Your task to perform on an android device: create a new album in the google photos Image 0: 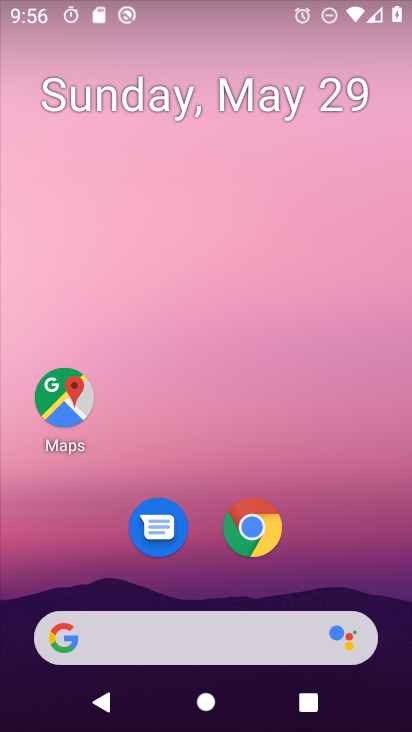
Step 0: drag from (394, 635) to (324, 64)
Your task to perform on an android device: create a new album in the google photos Image 1: 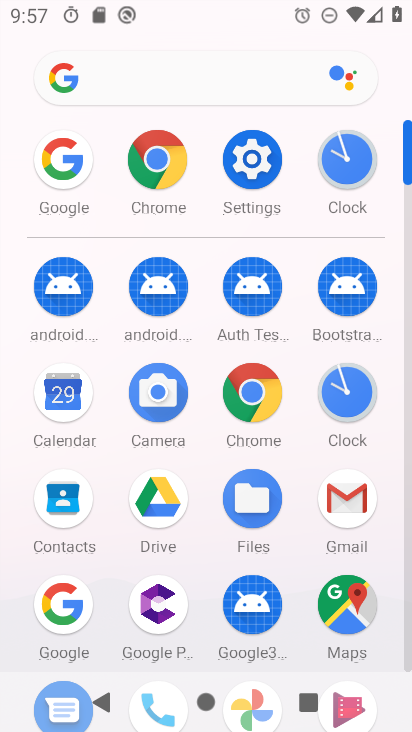
Step 1: drag from (247, 652) to (271, 132)
Your task to perform on an android device: create a new album in the google photos Image 2: 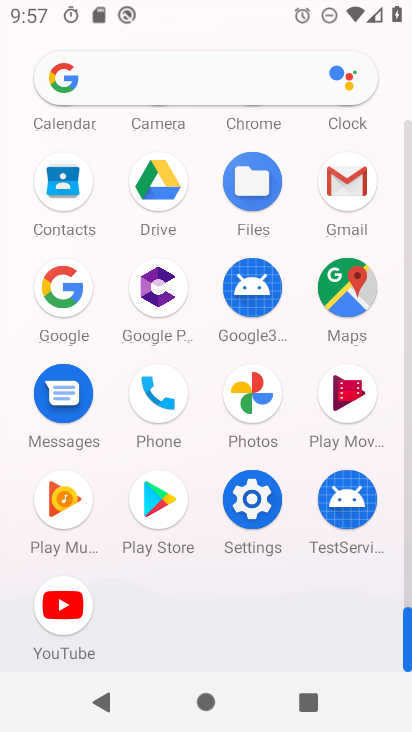
Step 2: click (256, 394)
Your task to perform on an android device: create a new album in the google photos Image 3: 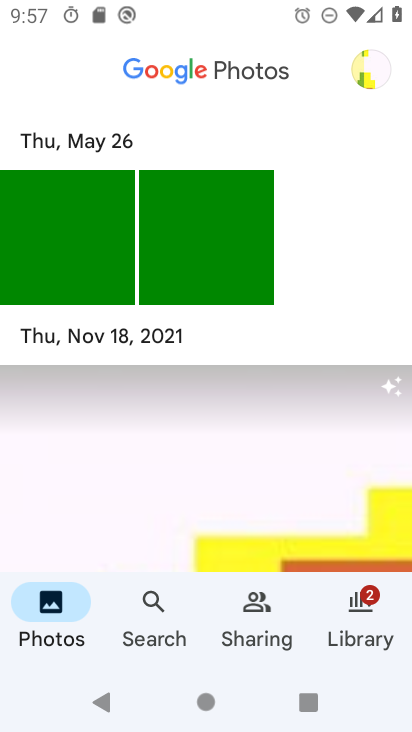
Step 3: click (5, 239)
Your task to perform on an android device: create a new album in the google photos Image 4: 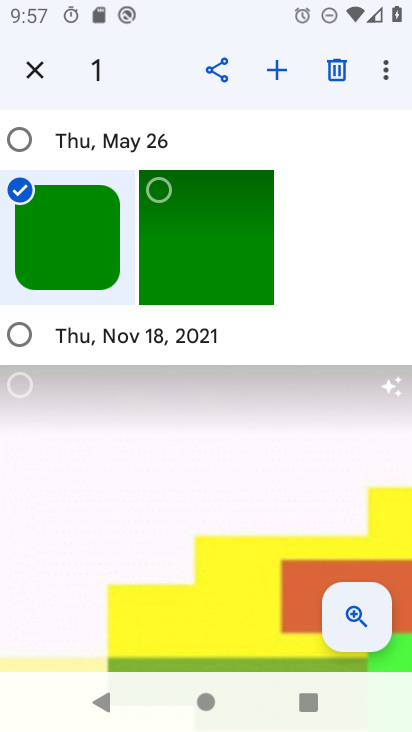
Step 4: click (237, 247)
Your task to perform on an android device: create a new album in the google photos Image 5: 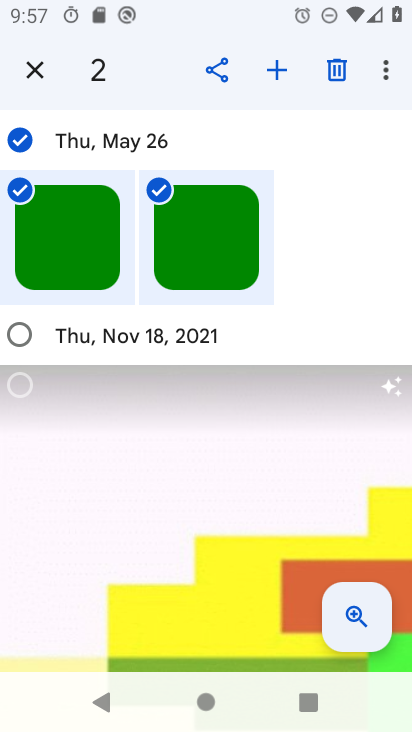
Step 5: click (283, 68)
Your task to perform on an android device: create a new album in the google photos Image 6: 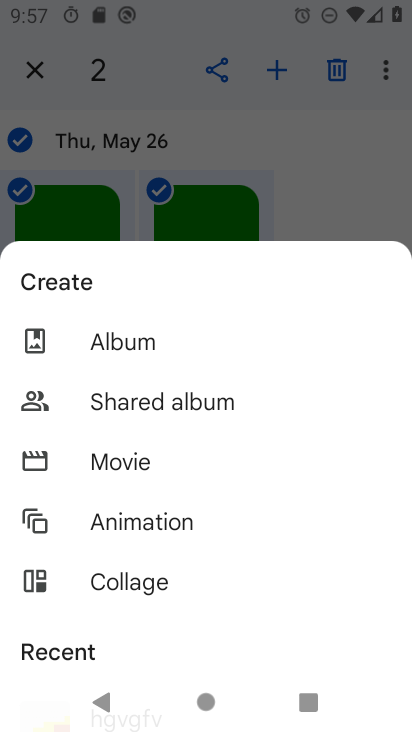
Step 6: click (107, 331)
Your task to perform on an android device: create a new album in the google photos Image 7: 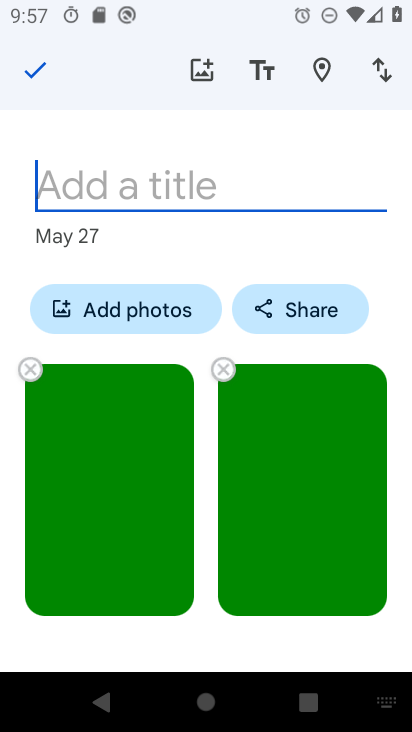
Step 7: type "Mssss"
Your task to perform on an android device: create a new album in the google photos Image 8: 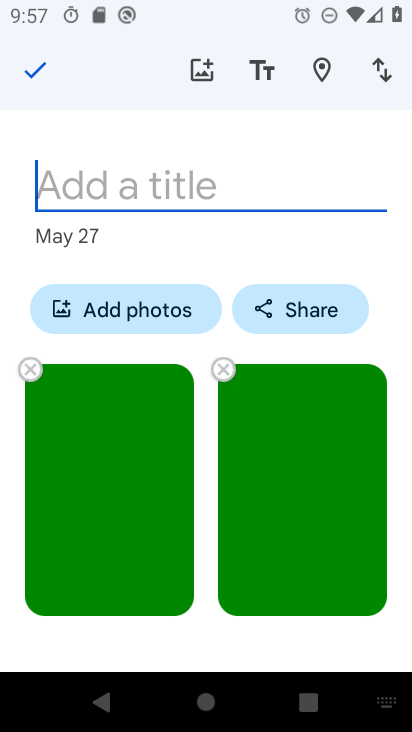
Step 8: click (31, 71)
Your task to perform on an android device: create a new album in the google photos Image 9: 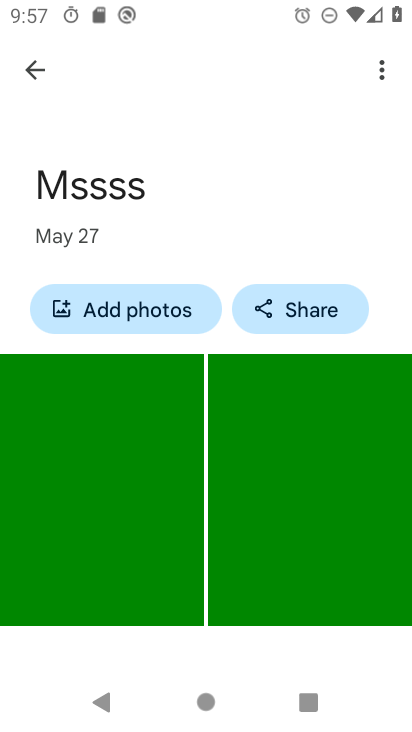
Step 9: task complete